Your task to perform on an android device: see tabs open on other devices in the chrome app Image 0: 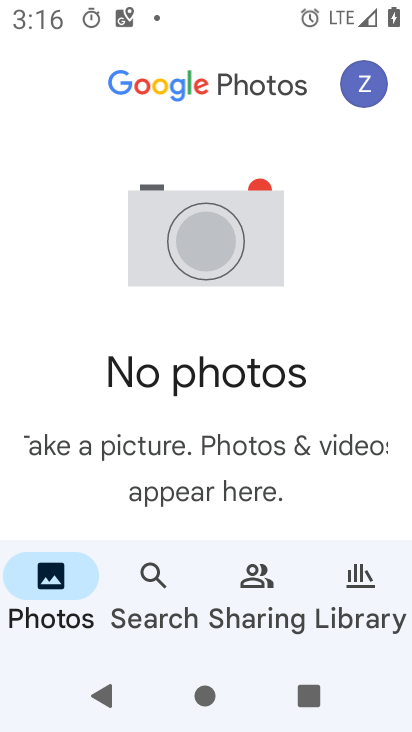
Step 0: press home button
Your task to perform on an android device: see tabs open on other devices in the chrome app Image 1: 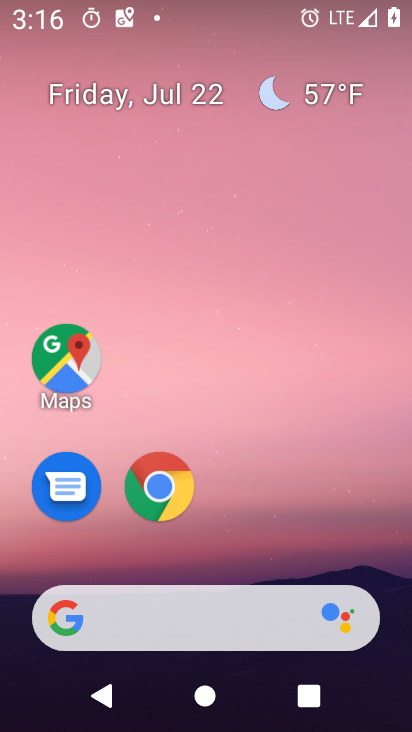
Step 1: drag from (366, 508) to (360, 101)
Your task to perform on an android device: see tabs open on other devices in the chrome app Image 2: 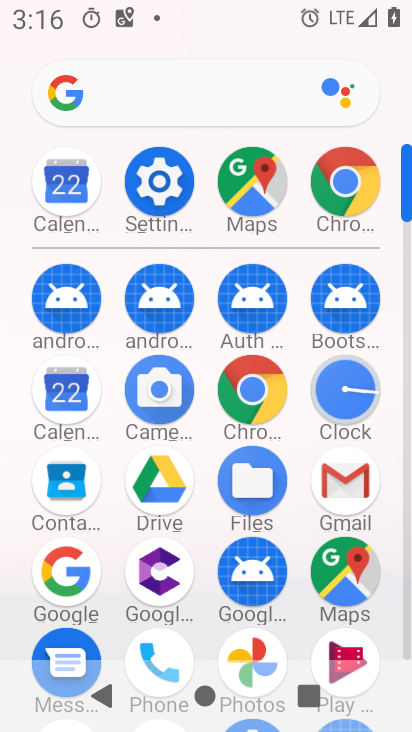
Step 2: click (271, 382)
Your task to perform on an android device: see tabs open on other devices in the chrome app Image 3: 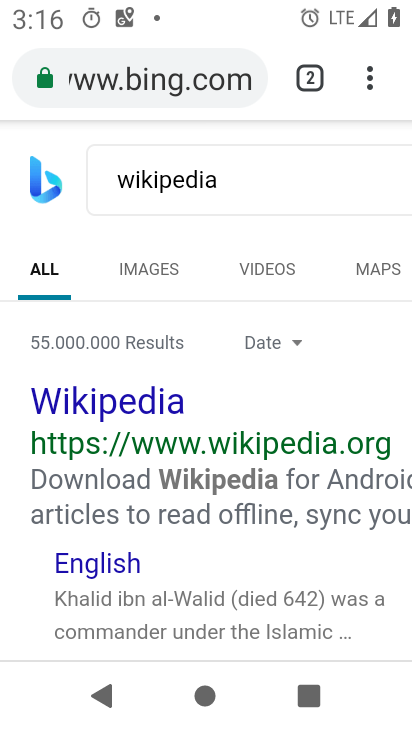
Step 3: click (371, 84)
Your task to perform on an android device: see tabs open on other devices in the chrome app Image 4: 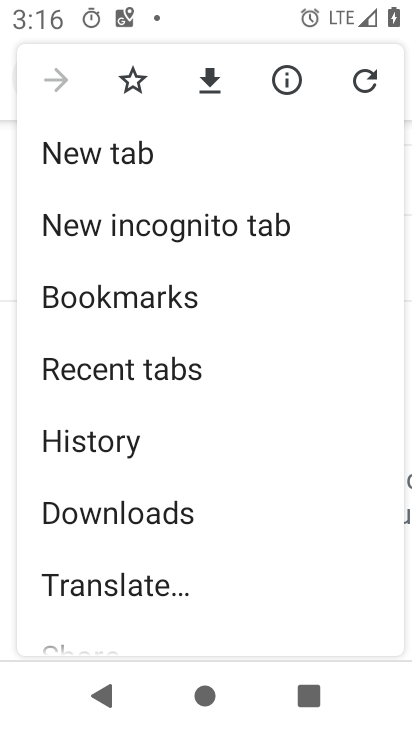
Step 4: click (203, 371)
Your task to perform on an android device: see tabs open on other devices in the chrome app Image 5: 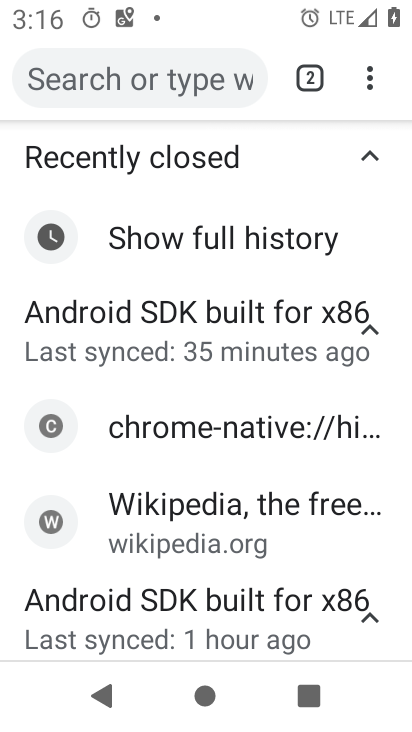
Step 5: click (305, 80)
Your task to perform on an android device: see tabs open on other devices in the chrome app Image 6: 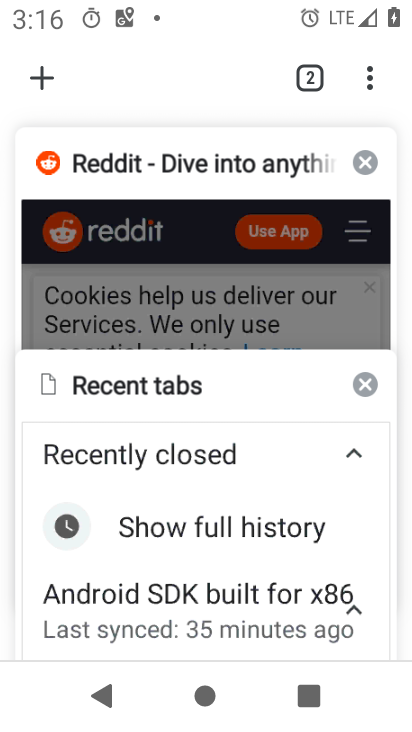
Step 6: task complete